Your task to perform on an android device: Go to sound settings Image 0: 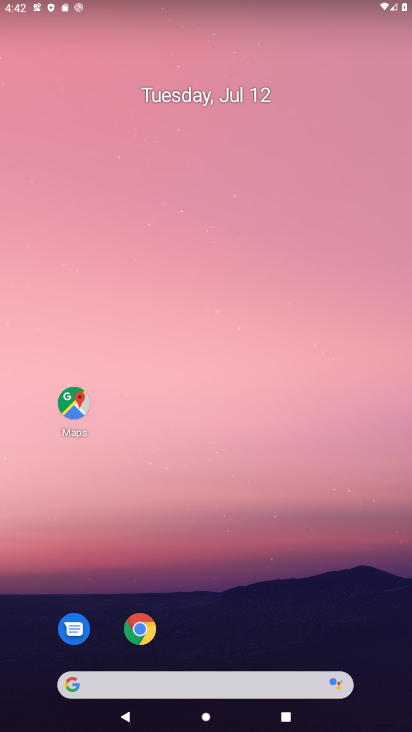
Step 0: press home button
Your task to perform on an android device: Go to sound settings Image 1: 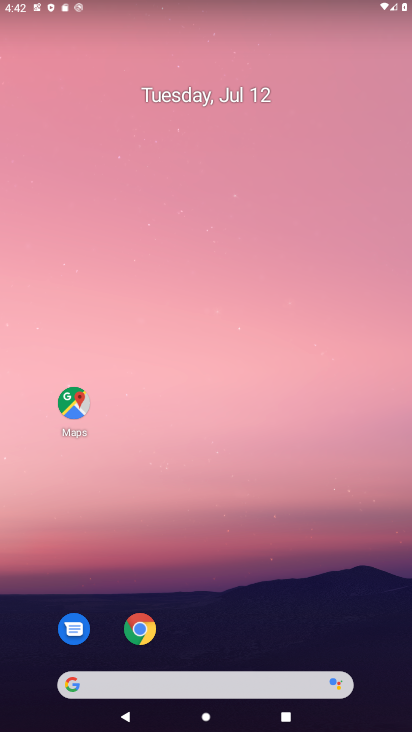
Step 1: press home button
Your task to perform on an android device: Go to sound settings Image 2: 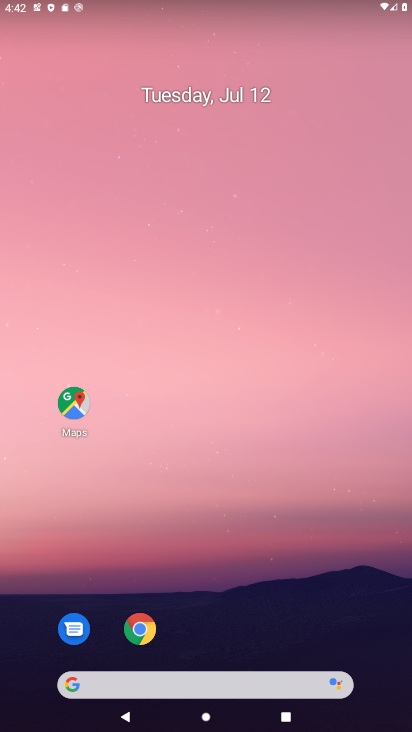
Step 2: drag from (228, 634) to (268, 7)
Your task to perform on an android device: Go to sound settings Image 3: 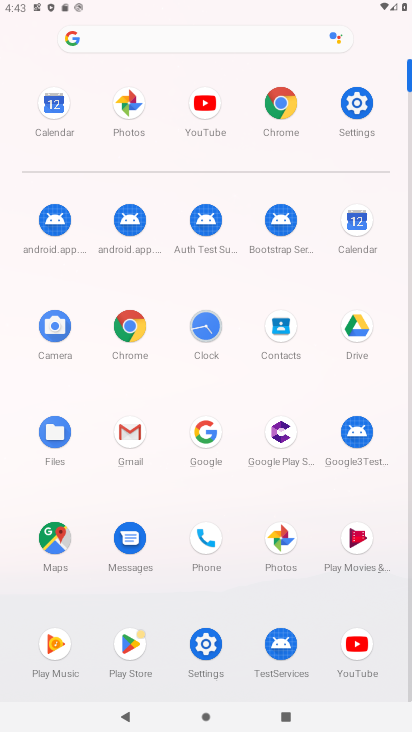
Step 3: click (355, 115)
Your task to perform on an android device: Go to sound settings Image 4: 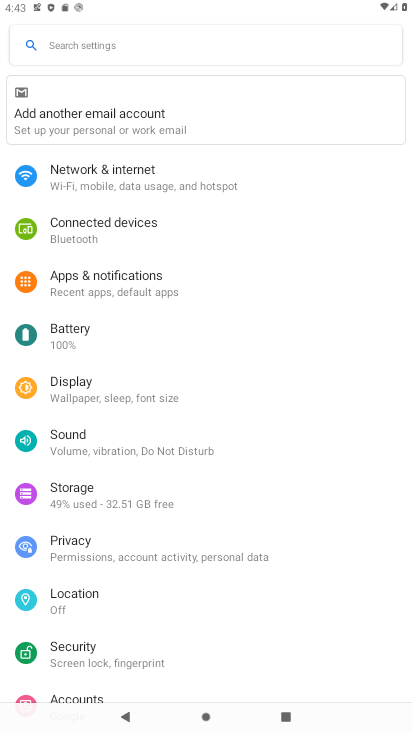
Step 4: click (87, 440)
Your task to perform on an android device: Go to sound settings Image 5: 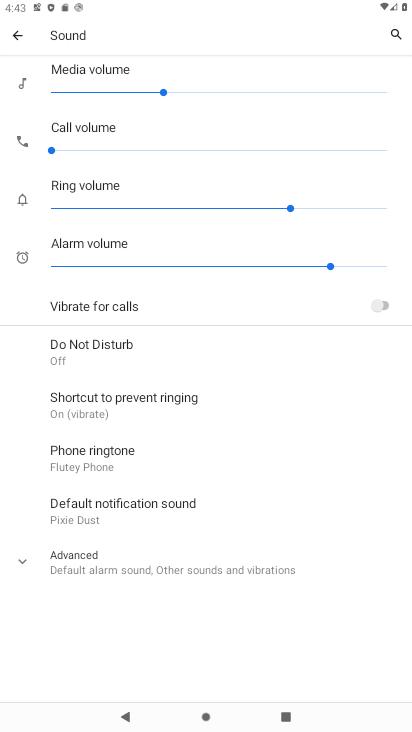
Step 5: task complete